Your task to perform on an android device: change the upload size in google photos Image 0: 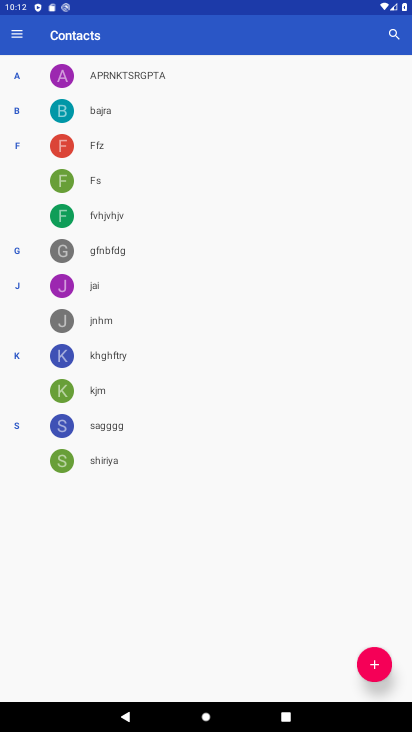
Step 0: press home button
Your task to perform on an android device: change the upload size in google photos Image 1: 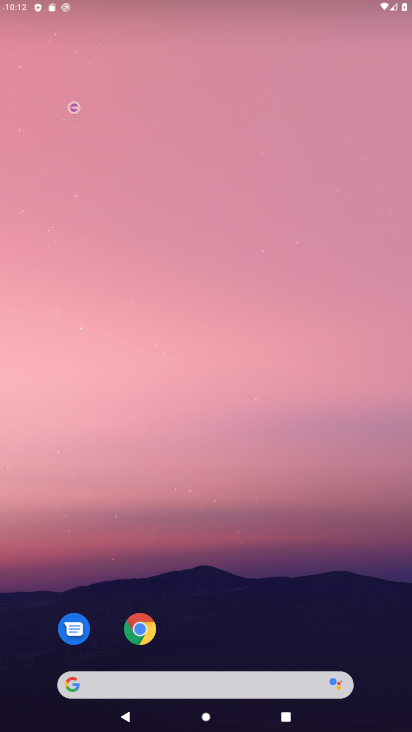
Step 1: drag from (384, 636) to (325, 5)
Your task to perform on an android device: change the upload size in google photos Image 2: 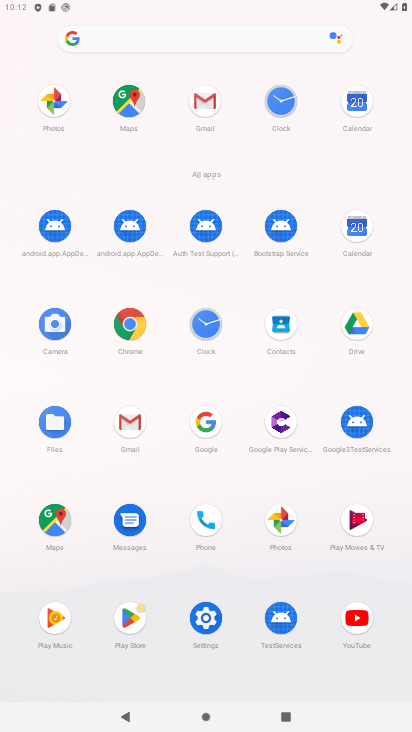
Step 2: click (257, 524)
Your task to perform on an android device: change the upload size in google photos Image 3: 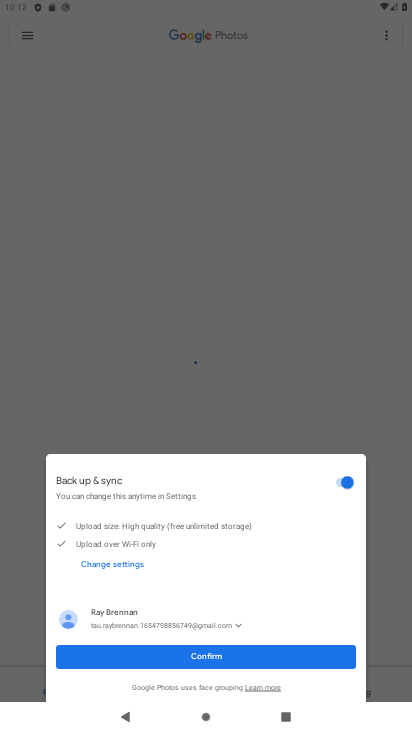
Step 3: click (217, 652)
Your task to perform on an android device: change the upload size in google photos Image 4: 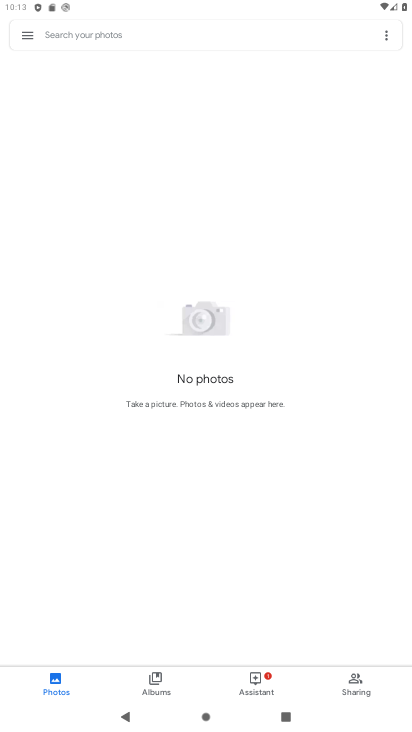
Step 4: click (32, 38)
Your task to perform on an android device: change the upload size in google photos Image 5: 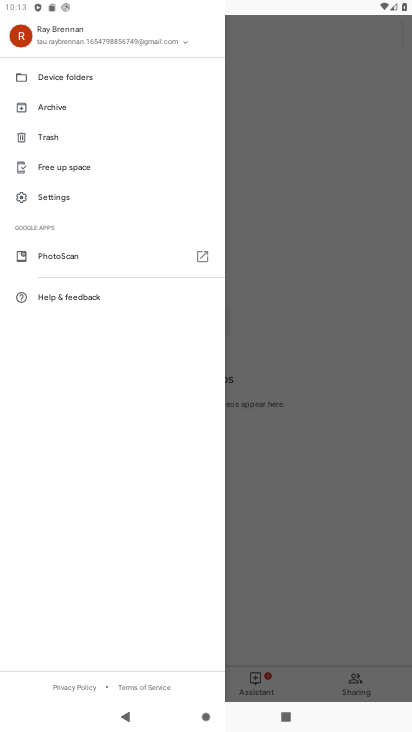
Step 5: click (64, 205)
Your task to perform on an android device: change the upload size in google photos Image 6: 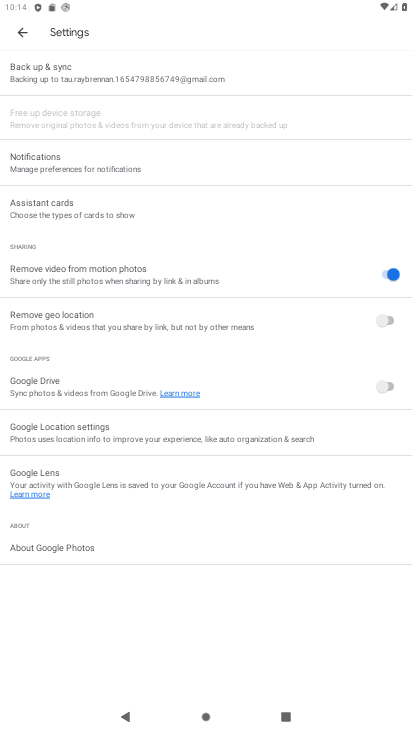
Step 6: click (115, 70)
Your task to perform on an android device: change the upload size in google photos Image 7: 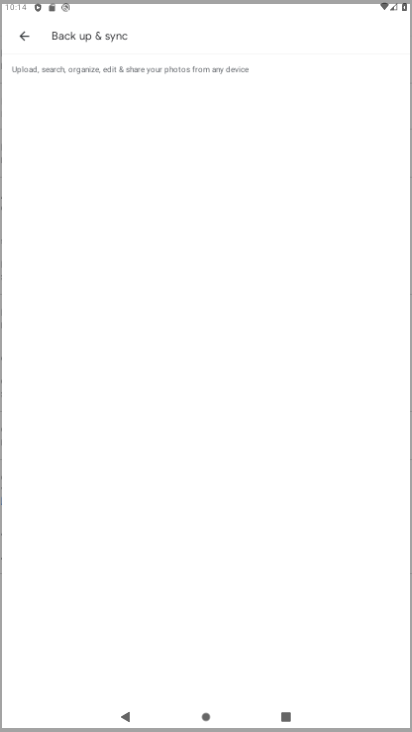
Step 7: click (116, 54)
Your task to perform on an android device: change the upload size in google photos Image 8: 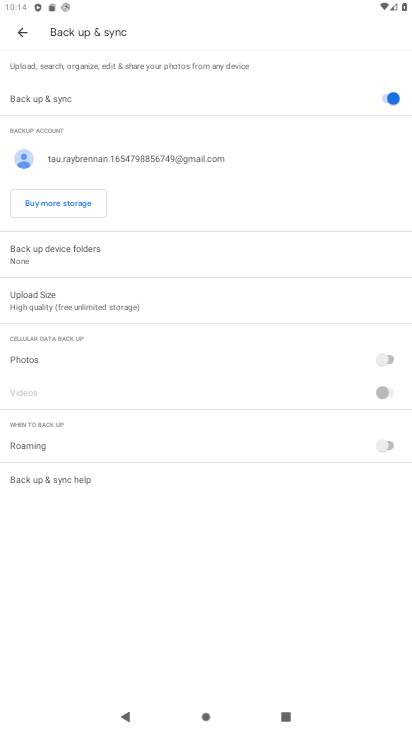
Step 8: click (72, 295)
Your task to perform on an android device: change the upload size in google photos Image 9: 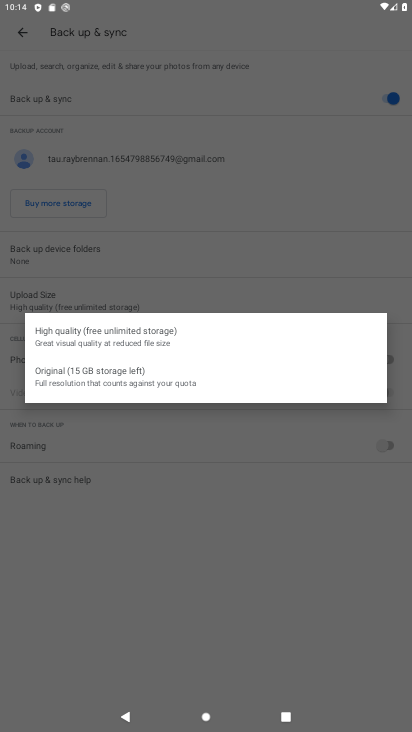
Step 9: click (122, 378)
Your task to perform on an android device: change the upload size in google photos Image 10: 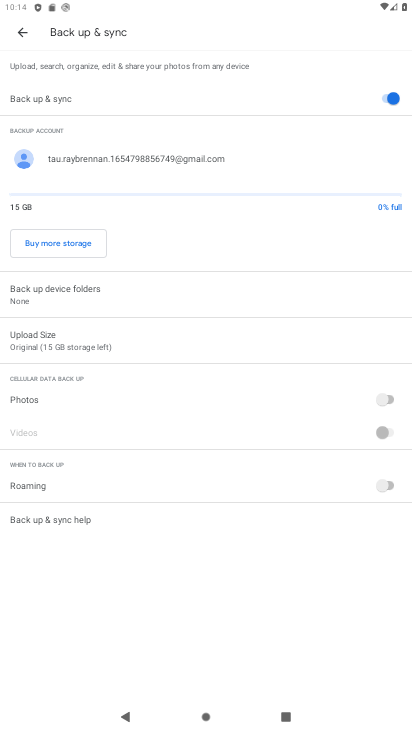
Step 10: task complete